Your task to perform on an android device: check google app version Image 0: 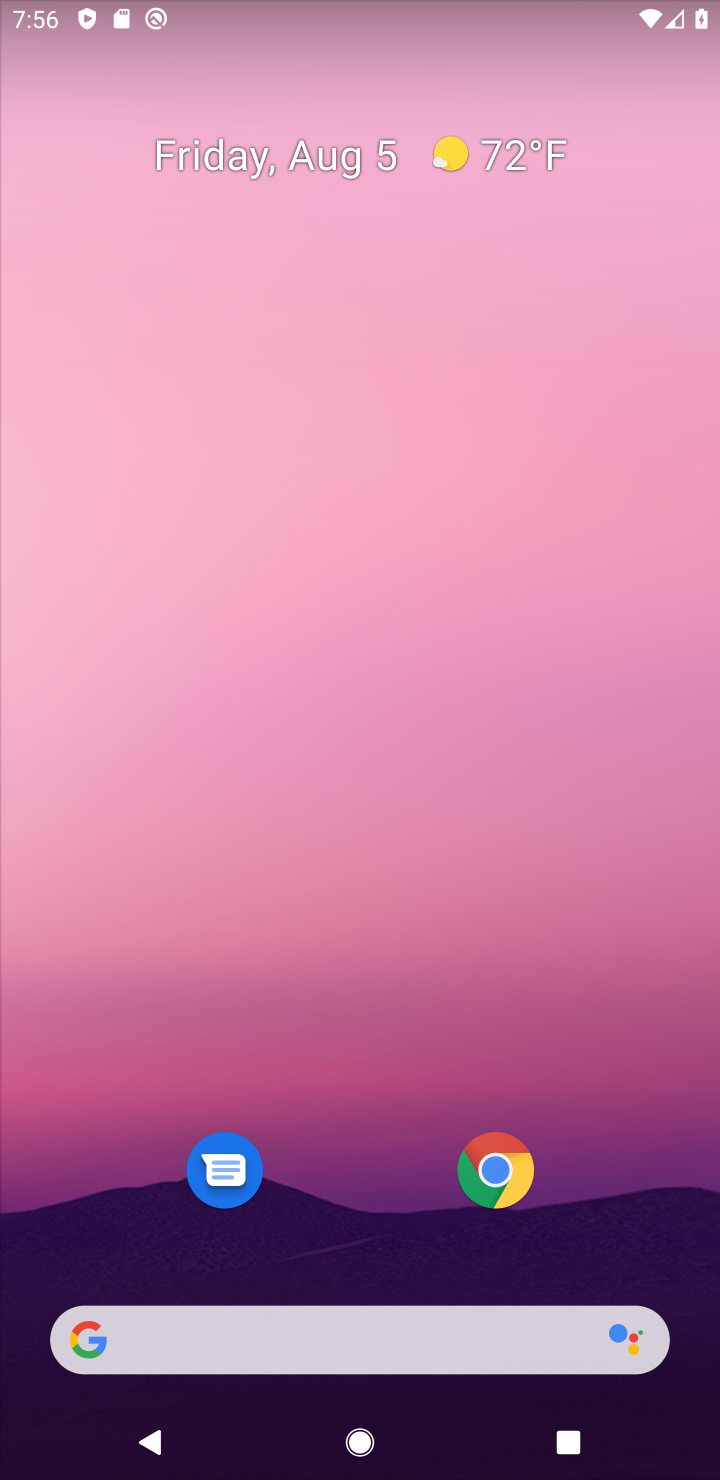
Step 0: click (503, 1178)
Your task to perform on an android device: check google app version Image 1: 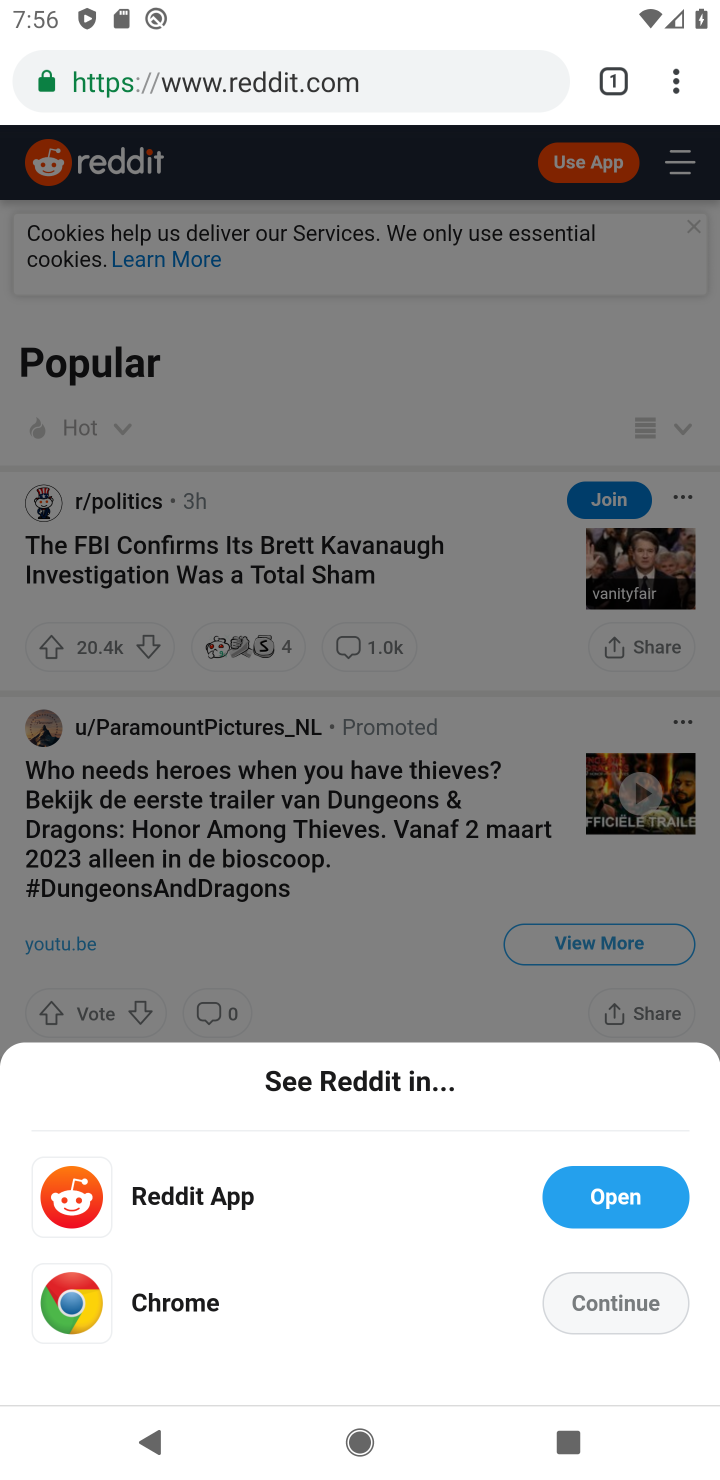
Step 1: click (675, 87)
Your task to perform on an android device: check google app version Image 2: 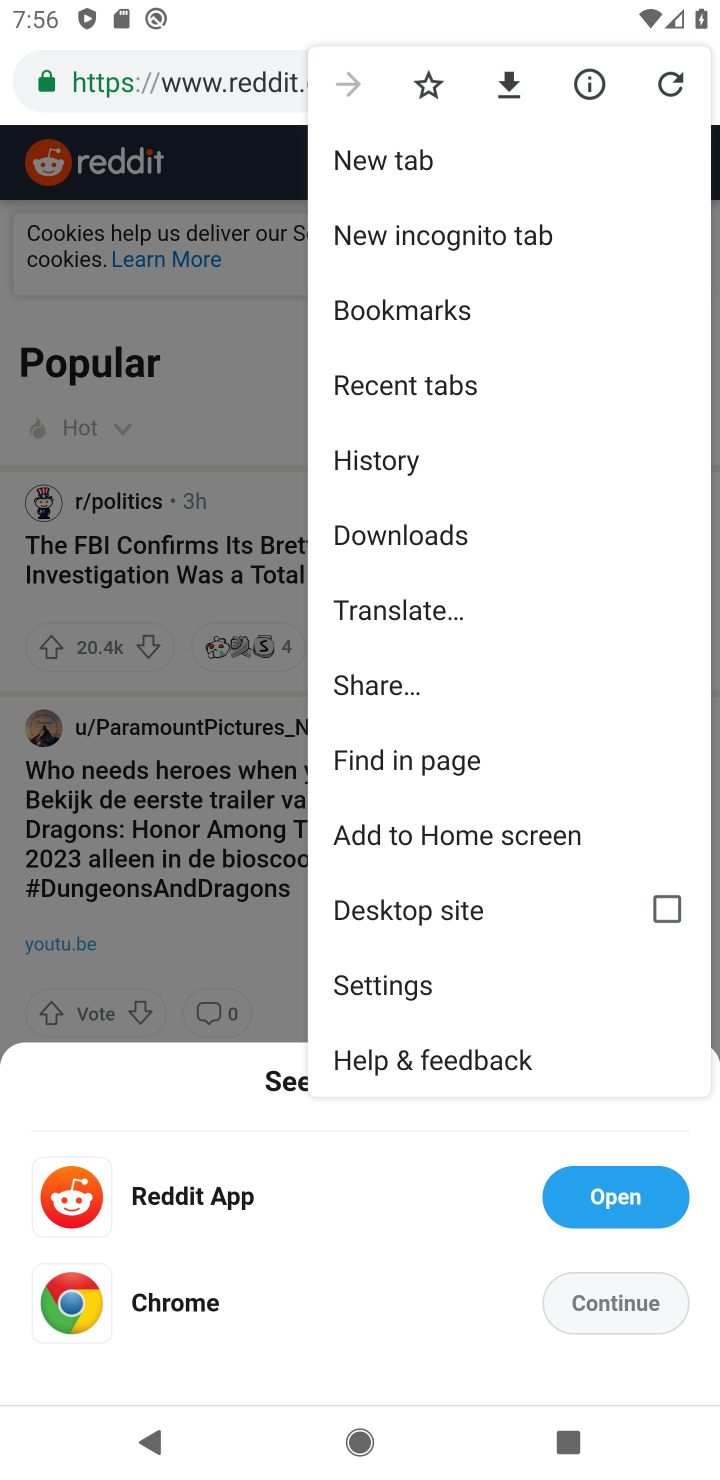
Step 2: click (383, 982)
Your task to perform on an android device: check google app version Image 3: 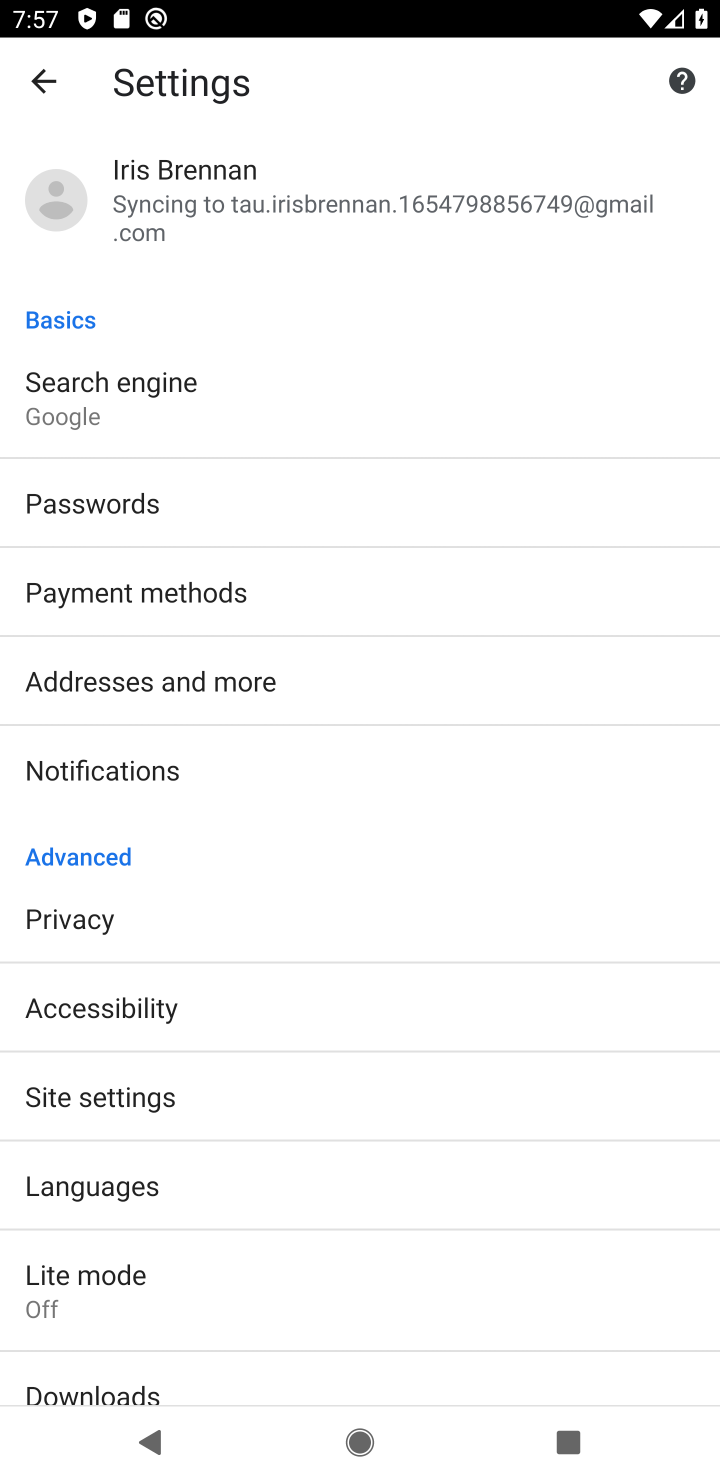
Step 3: drag from (312, 1353) to (346, 550)
Your task to perform on an android device: check google app version Image 4: 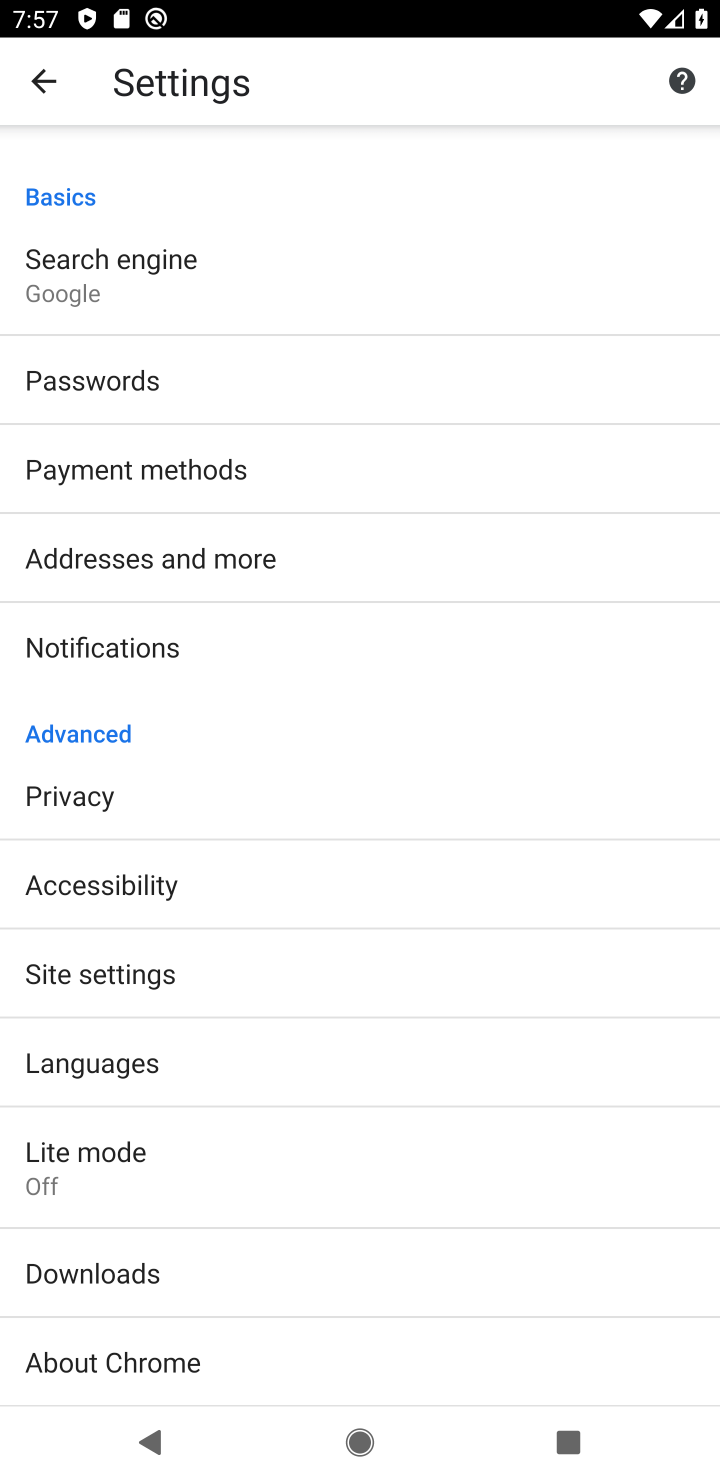
Step 4: click (81, 1369)
Your task to perform on an android device: check google app version Image 5: 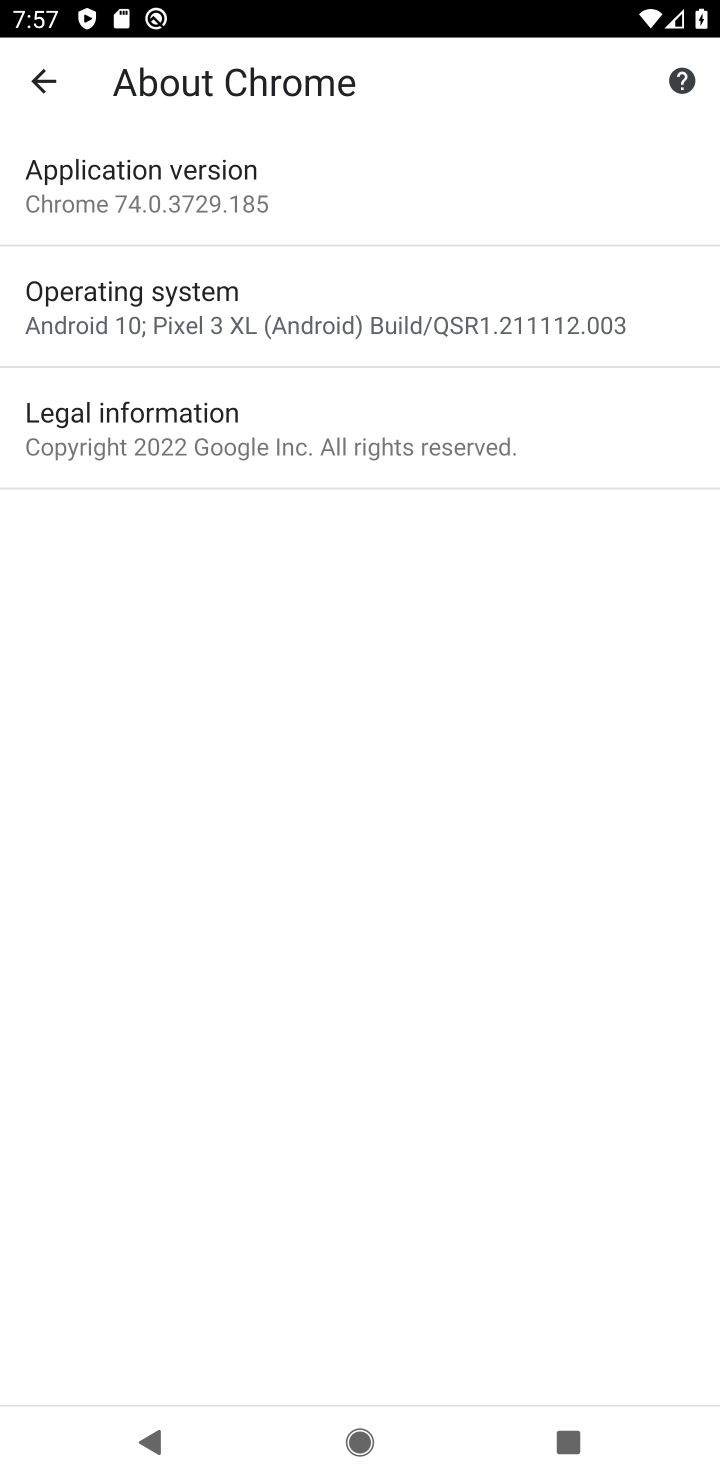
Step 5: task complete